Your task to perform on an android device: Open settings on Google Maps Image 0: 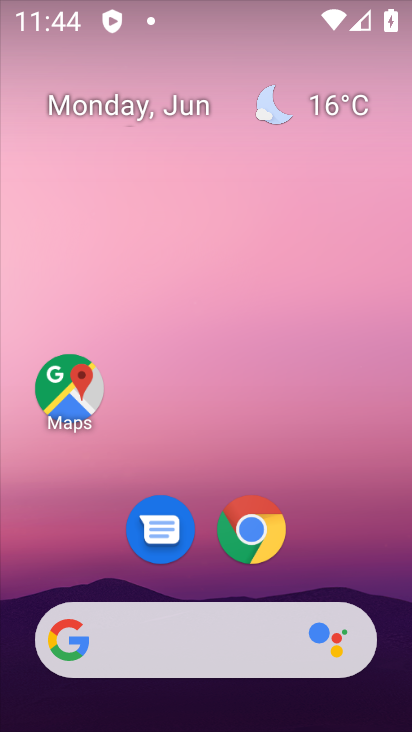
Step 0: click (54, 383)
Your task to perform on an android device: Open settings on Google Maps Image 1: 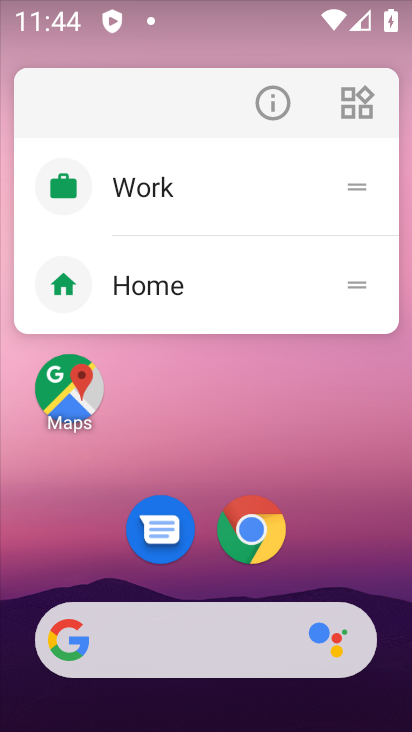
Step 1: click (54, 383)
Your task to perform on an android device: Open settings on Google Maps Image 2: 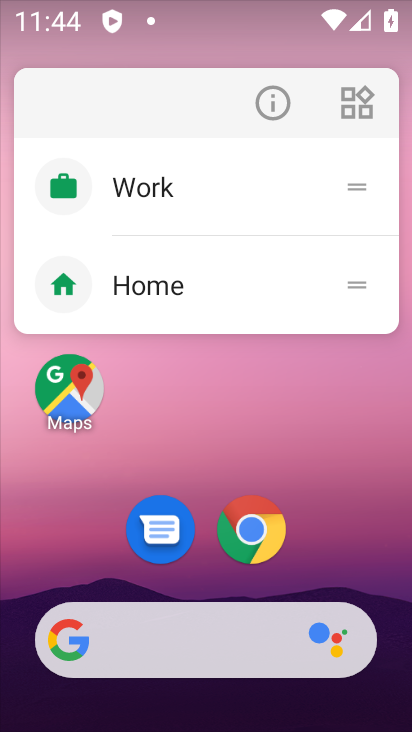
Step 2: click (68, 401)
Your task to perform on an android device: Open settings on Google Maps Image 3: 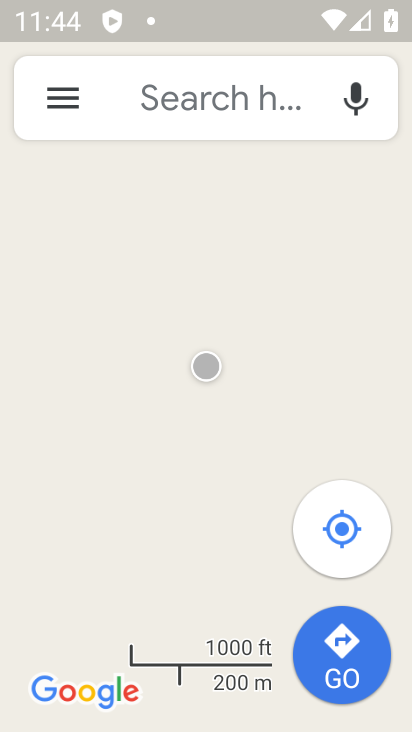
Step 3: click (68, 100)
Your task to perform on an android device: Open settings on Google Maps Image 4: 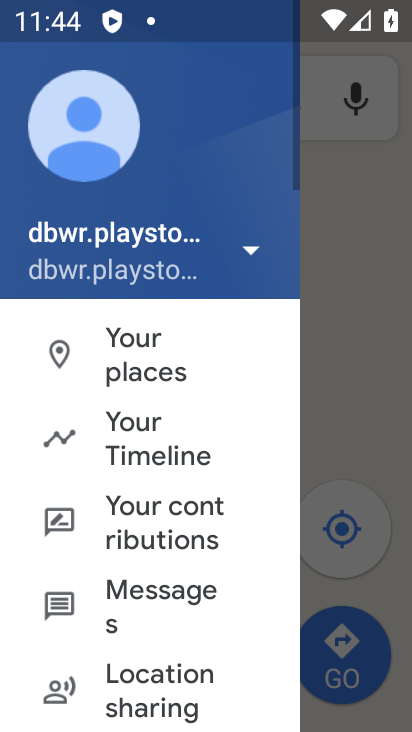
Step 4: drag from (168, 608) to (195, 183)
Your task to perform on an android device: Open settings on Google Maps Image 5: 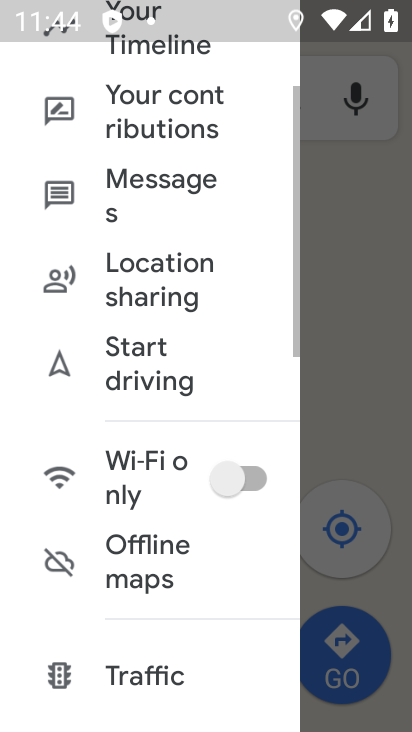
Step 5: drag from (167, 568) to (224, 196)
Your task to perform on an android device: Open settings on Google Maps Image 6: 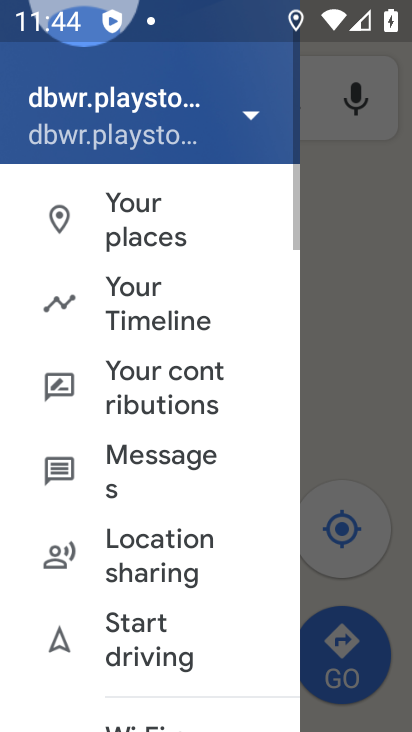
Step 6: drag from (180, 661) to (210, 281)
Your task to perform on an android device: Open settings on Google Maps Image 7: 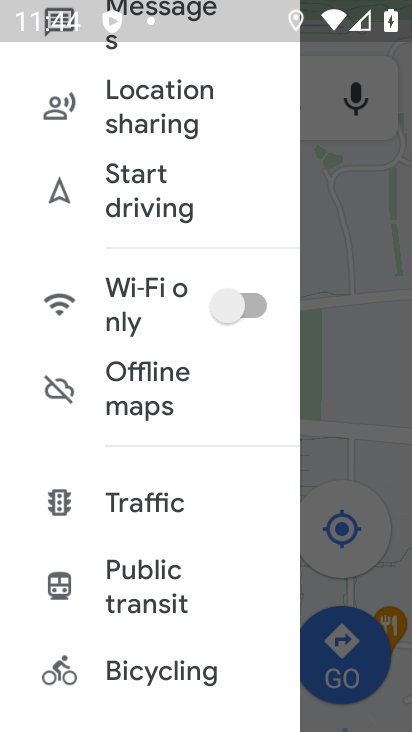
Step 7: drag from (109, 653) to (186, 174)
Your task to perform on an android device: Open settings on Google Maps Image 8: 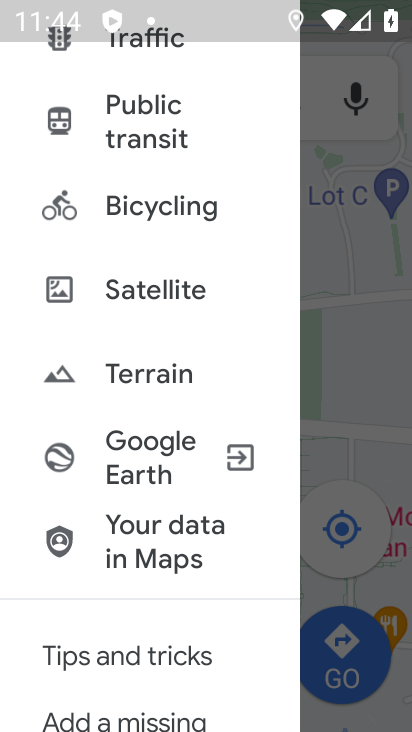
Step 8: drag from (161, 620) to (200, 222)
Your task to perform on an android device: Open settings on Google Maps Image 9: 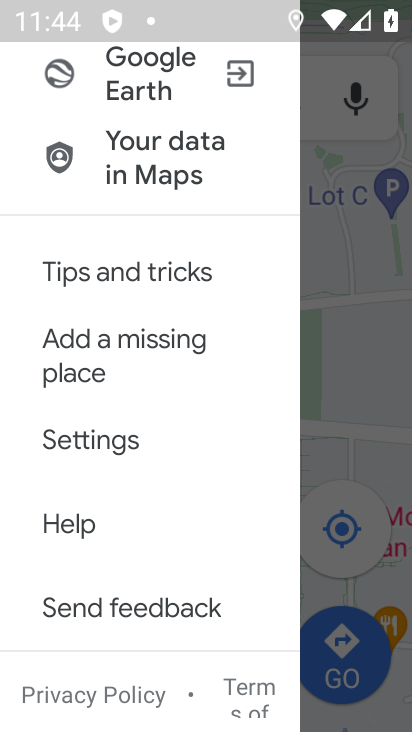
Step 9: click (187, 457)
Your task to perform on an android device: Open settings on Google Maps Image 10: 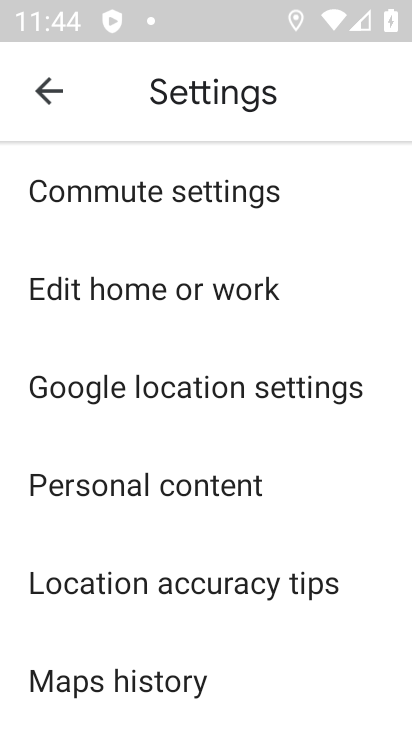
Step 10: task complete